Your task to perform on an android device: Show me the alarms in the clock app Image 0: 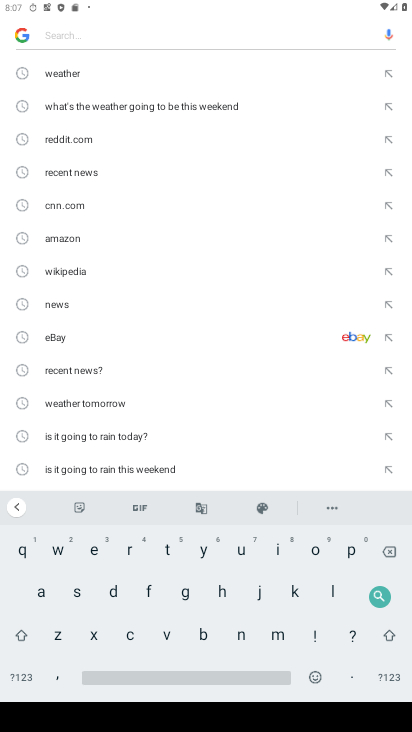
Step 0: press home button
Your task to perform on an android device: Show me the alarms in the clock app Image 1: 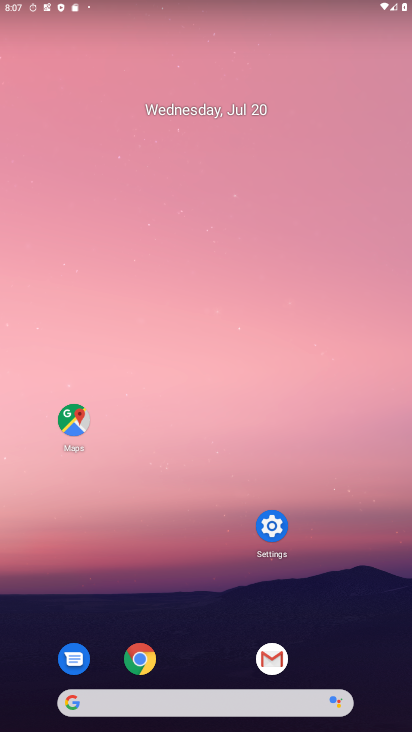
Step 1: drag from (236, 722) to (139, 53)
Your task to perform on an android device: Show me the alarms in the clock app Image 2: 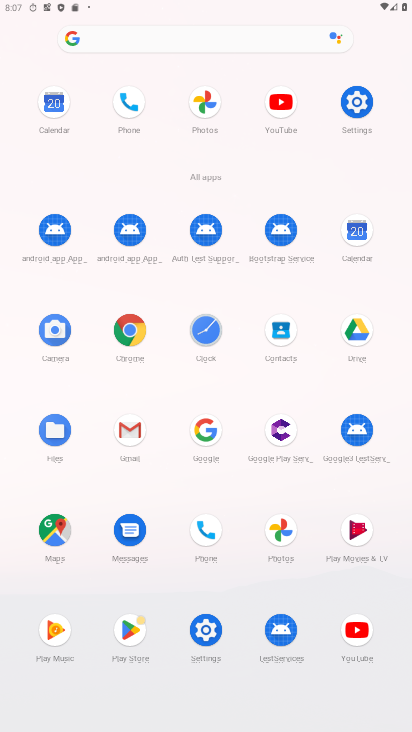
Step 2: click (207, 344)
Your task to perform on an android device: Show me the alarms in the clock app Image 3: 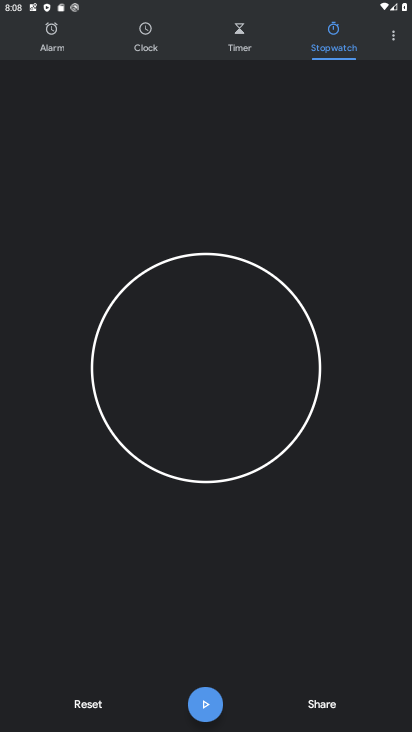
Step 3: click (52, 36)
Your task to perform on an android device: Show me the alarms in the clock app Image 4: 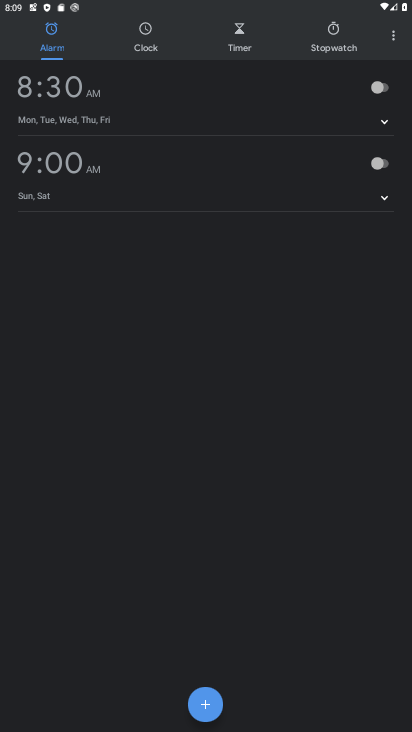
Step 4: task complete